Your task to perform on an android device: turn pop-ups off in chrome Image 0: 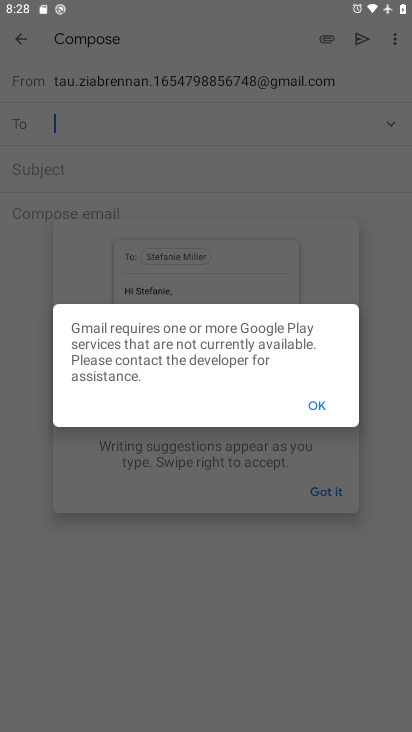
Step 0: press home button
Your task to perform on an android device: turn pop-ups off in chrome Image 1: 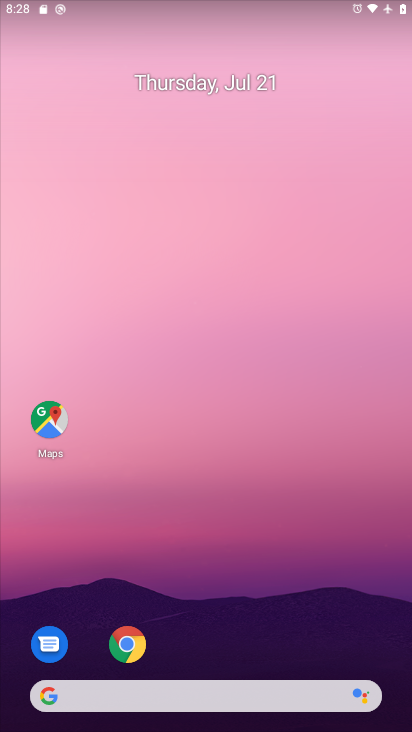
Step 1: click (128, 667)
Your task to perform on an android device: turn pop-ups off in chrome Image 2: 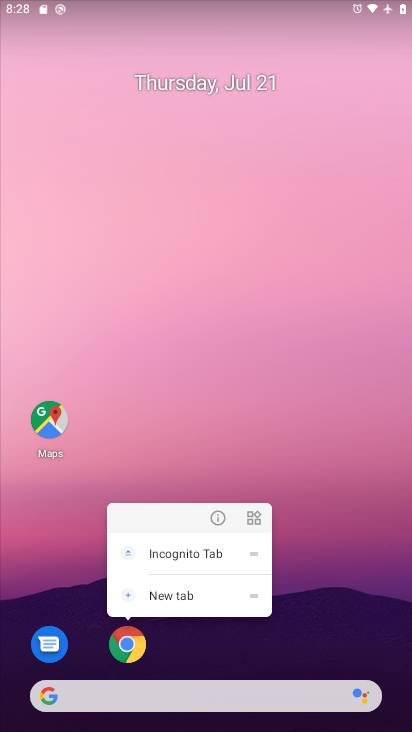
Step 2: click (134, 646)
Your task to perform on an android device: turn pop-ups off in chrome Image 3: 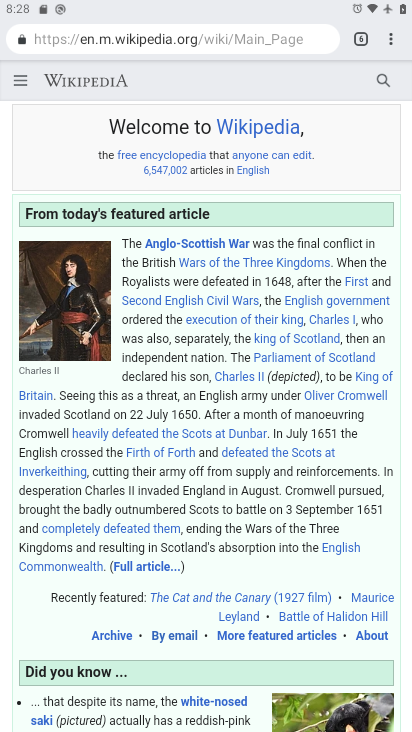
Step 3: click (393, 23)
Your task to perform on an android device: turn pop-ups off in chrome Image 4: 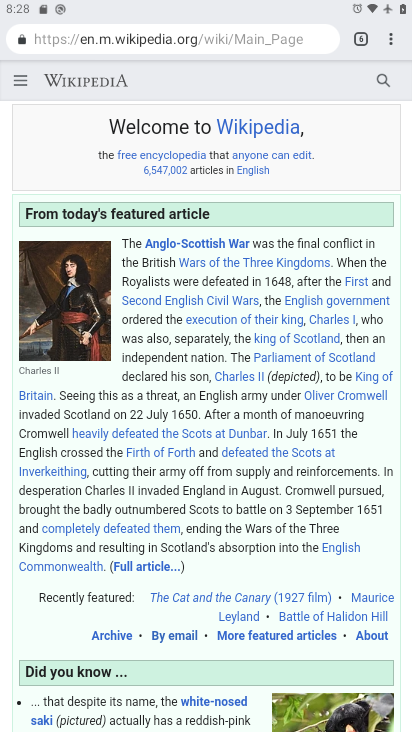
Step 4: click (398, 33)
Your task to perform on an android device: turn pop-ups off in chrome Image 5: 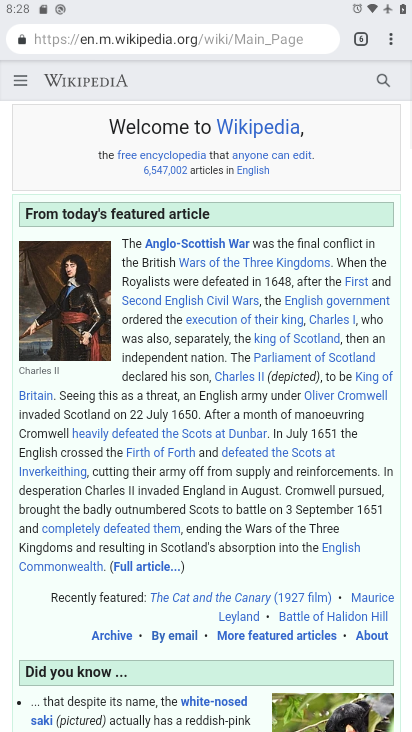
Step 5: click (398, 40)
Your task to perform on an android device: turn pop-ups off in chrome Image 6: 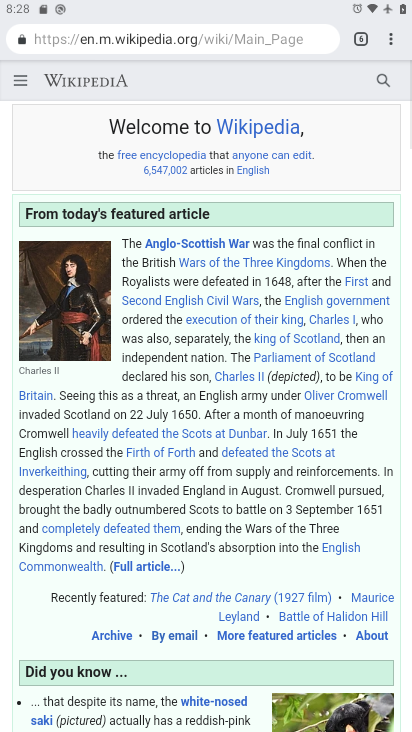
Step 6: click (398, 40)
Your task to perform on an android device: turn pop-ups off in chrome Image 7: 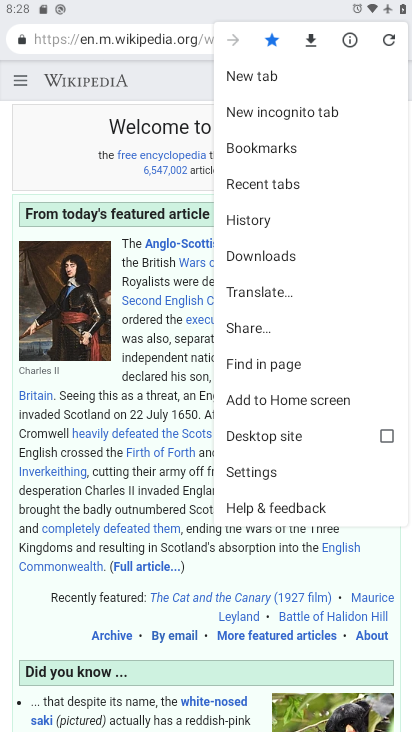
Step 7: click (263, 479)
Your task to perform on an android device: turn pop-ups off in chrome Image 8: 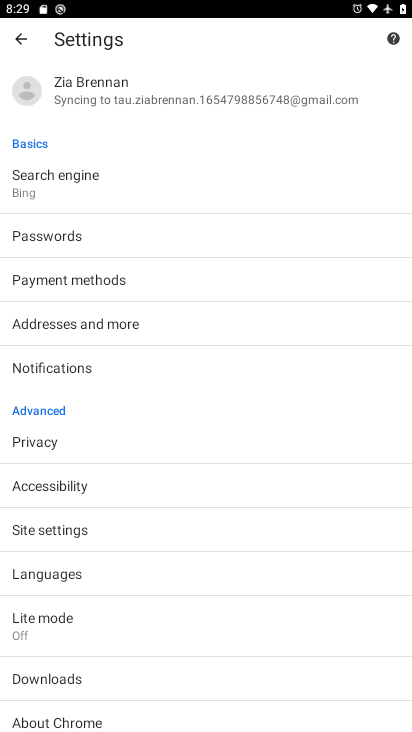
Step 8: click (39, 534)
Your task to perform on an android device: turn pop-ups off in chrome Image 9: 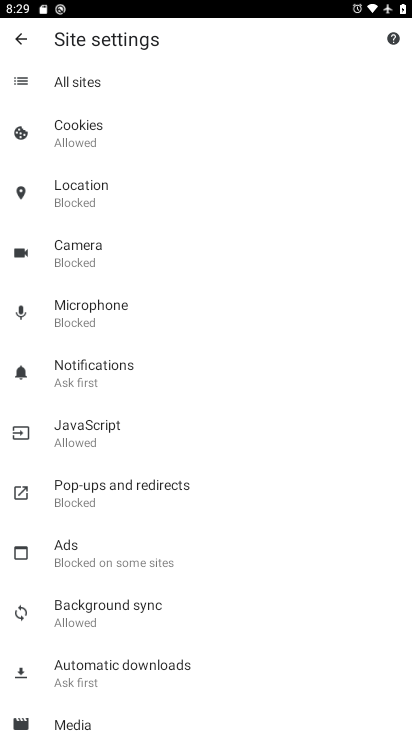
Step 9: click (135, 486)
Your task to perform on an android device: turn pop-ups off in chrome Image 10: 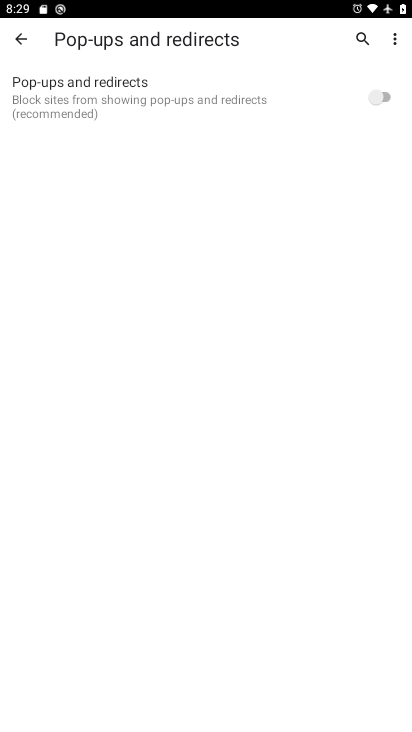
Step 10: task complete